Your task to perform on an android device: Play the last video I watched on Youtube Image 0: 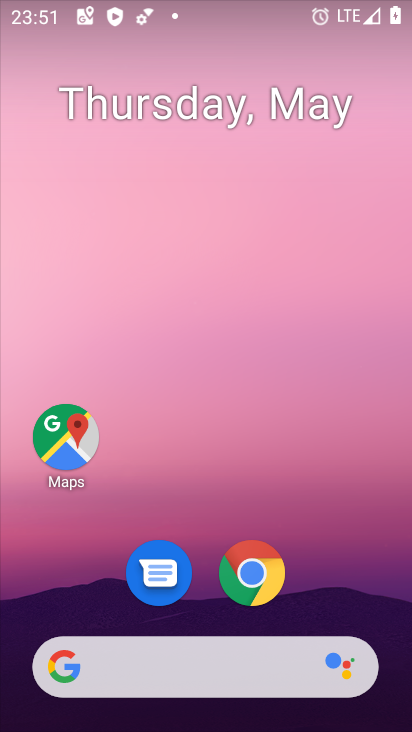
Step 0: drag from (201, 594) to (201, 191)
Your task to perform on an android device: Play the last video I watched on Youtube Image 1: 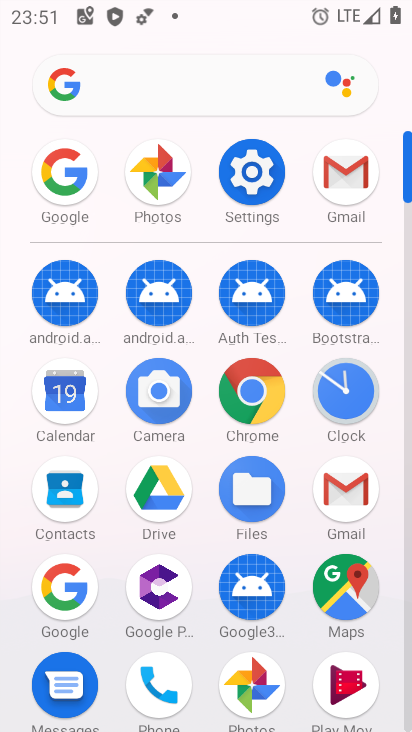
Step 1: drag from (295, 576) to (291, 237)
Your task to perform on an android device: Play the last video I watched on Youtube Image 2: 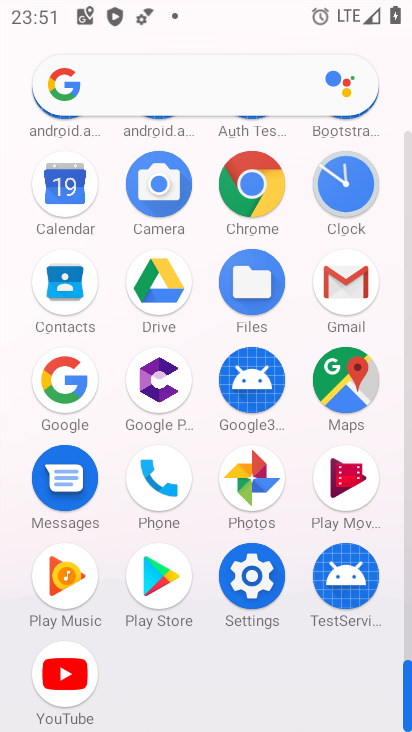
Step 2: click (75, 670)
Your task to perform on an android device: Play the last video I watched on Youtube Image 3: 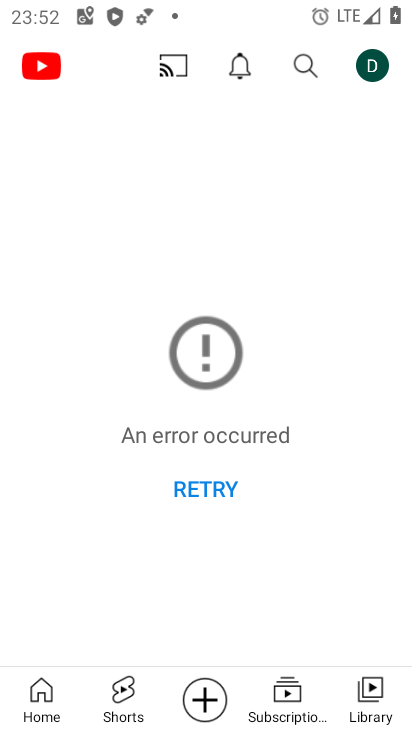
Step 3: click (356, 682)
Your task to perform on an android device: Play the last video I watched on Youtube Image 4: 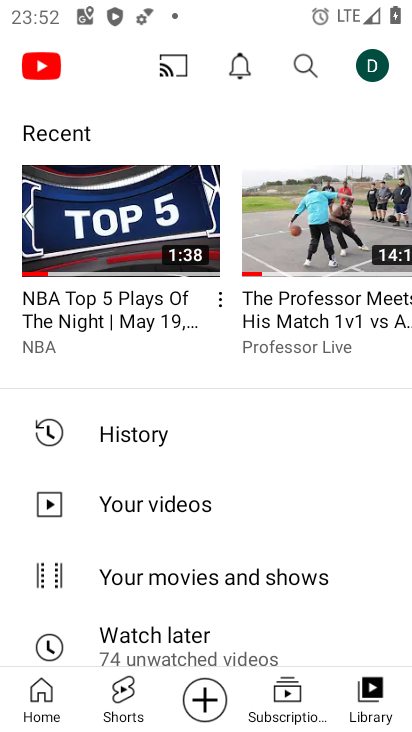
Step 4: click (141, 421)
Your task to perform on an android device: Play the last video I watched on Youtube Image 5: 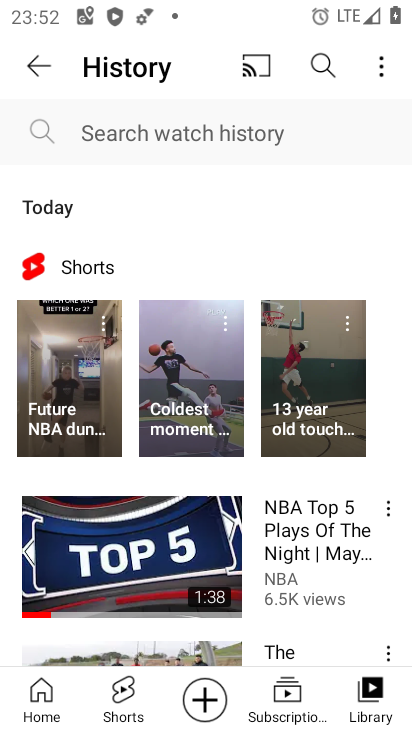
Step 5: drag from (208, 485) to (204, 206)
Your task to perform on an android device: Play the last video I watched on Youtube Image 6: 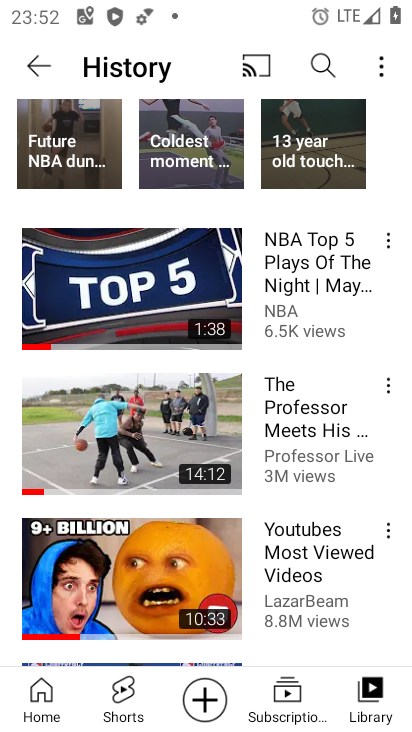
Step 6: drag from (200, 516) to (197, 274)
Your task to perform on an android device: Play the last video I watched on Youtube Image 7: 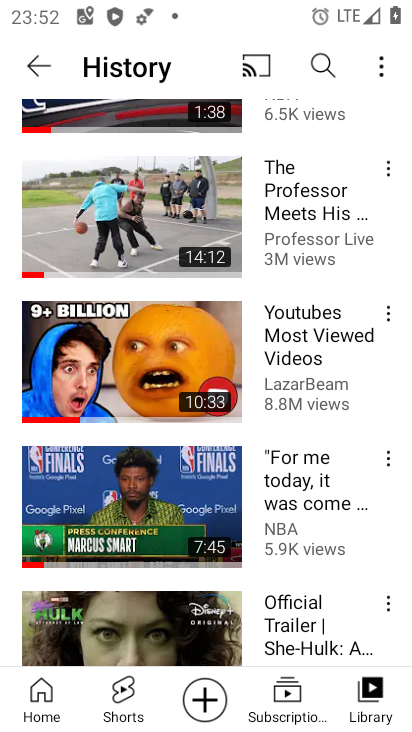
Step 7: drag from (185, 228) to (191, 532)
Your task to perform on an android device: Play the last video I watched on Youtube Image 8: 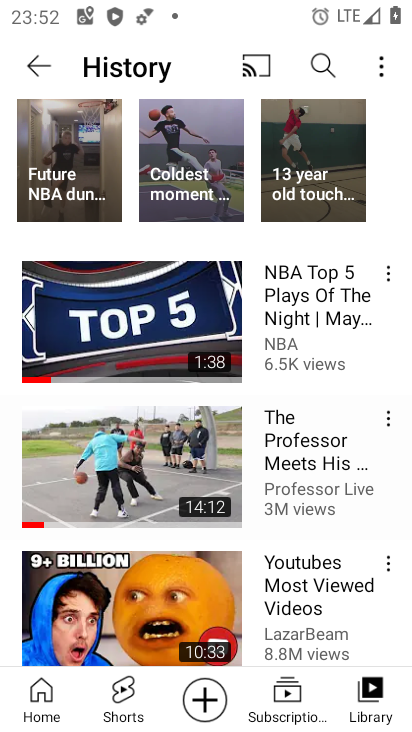
Step 8: drag from (162, 237) to (180, 518)
Your task to perform on an android device: Play the last video I watched on Youtube Image 9: 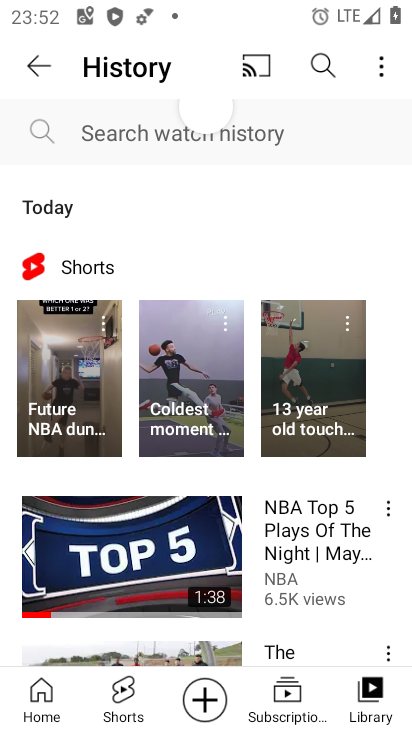
Step 9: drag from (168, 307) to (194, 493)
Your task to perform on an android device: Play the last video I watched on Youtube Image 10: 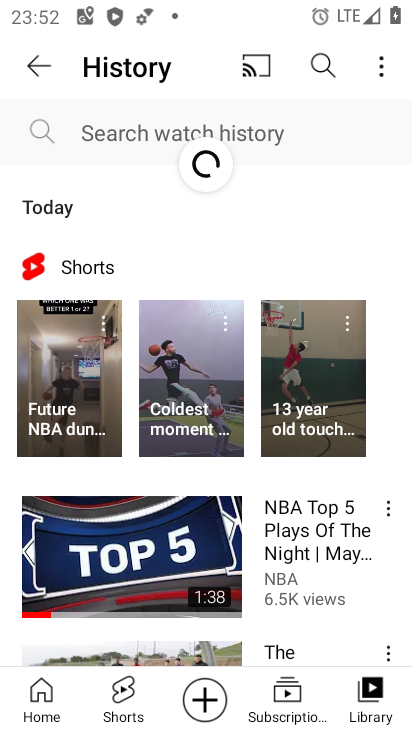
Step 10: click (175, 337)
Your task to perform on an android device: Play the last video I watched on Youtube Image 11: 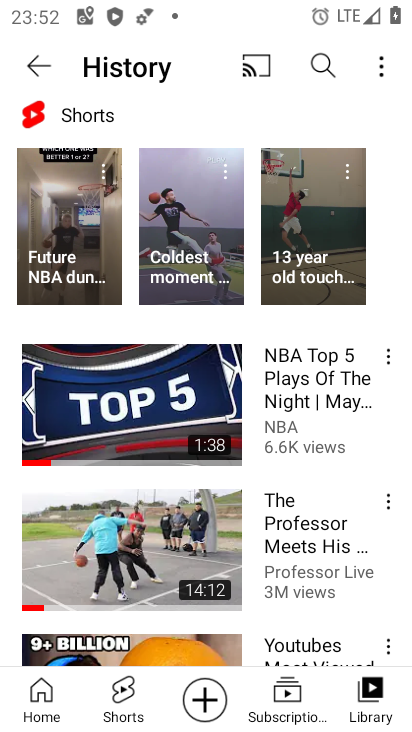
Step 11: click (150, 399)
Your task to perform on an android device: Play the last video I watched on Youtube Image 12: 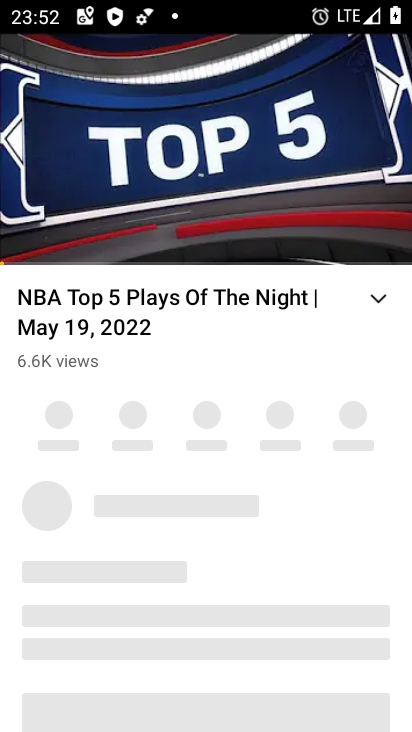
Step 12: task complete